Your task to perform on an android device: Search for a new blush Image 0: 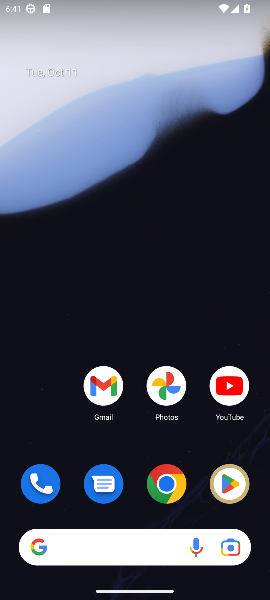
Step 0: click (166, 486)
Your task to perform on an android device: Search for a new blush Image 1: 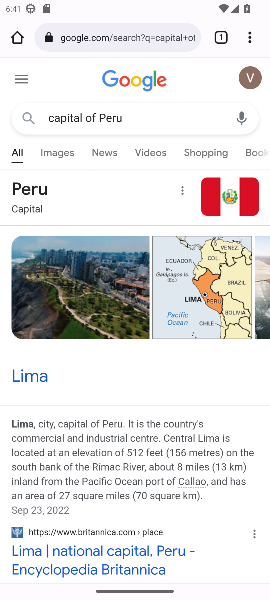
Step 1: click (130, 37)
Your task to perform on an android device: Search for a new blush Image 2: 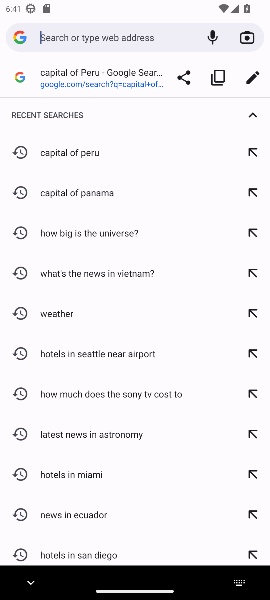
Step 2: type "new blush"
Your task to perform on an android device: Search for a new blush Image 3: 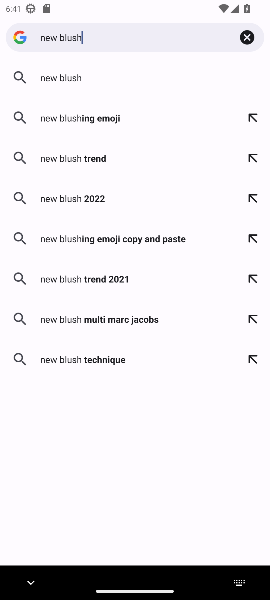
Step 3: click (57, 77)
Your task to perform on an android device: Search for a new blush Image 4: 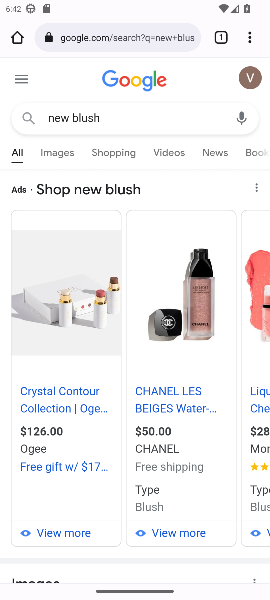
Step 4: task complete